Your task to perform on an android device: Open calendar and show me the third week of next month Image 0: 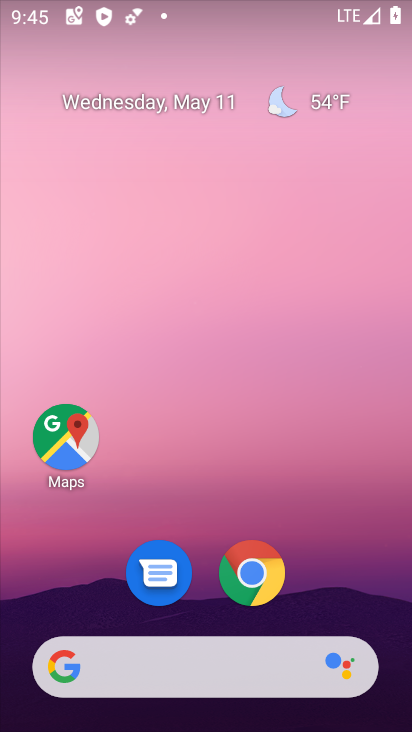
Step 0: drag from (227, 590) to (179, 23)
Your task to perform on an android device: Open calendar and show me the third week of next month Image 1: 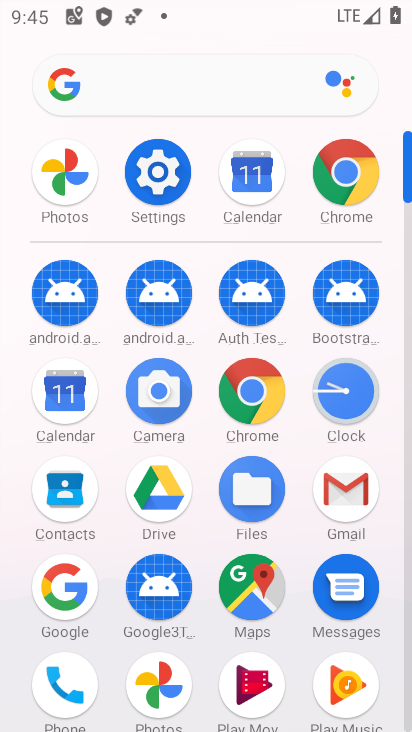
Step 1: click (54, 404)
Your task to perform on an android device: Open calendar and show me the third week of next month Image 2: 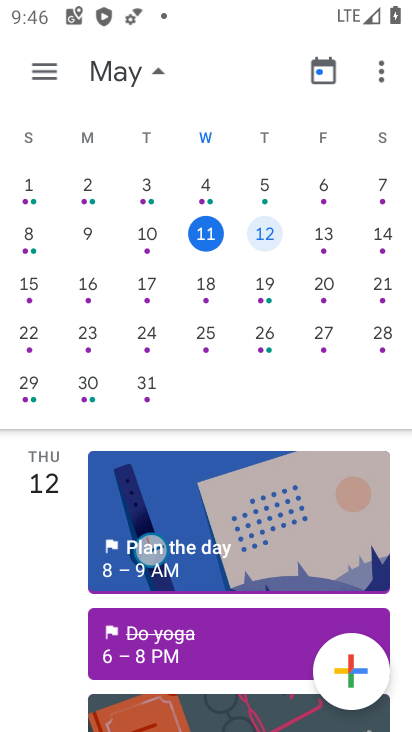
Step 2: drag from (376, 311) to (22, 287)
Your task to perform on an android device: Open calendar and show me the third week of next month Image 3: 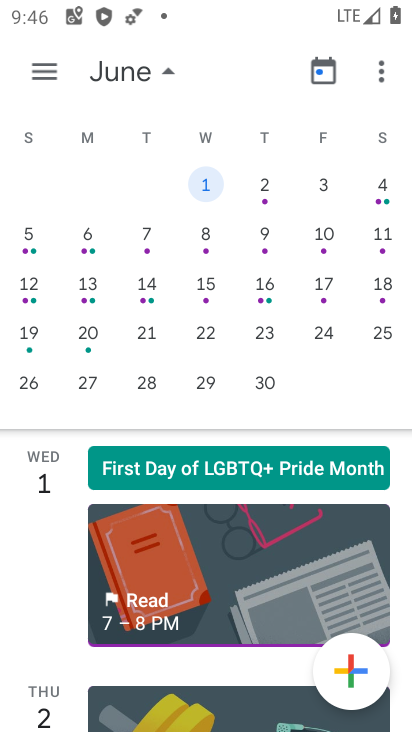
Step 3: click (269, 280)
Your task to perform on an android device: Open calendar and show me the third week of next month Image 4: 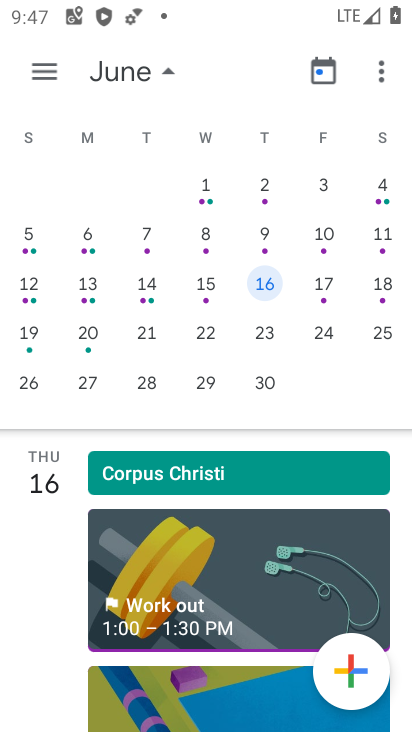
Step 4: task complete